Your task to perform on an android device: open app "Venmo" Image 0: 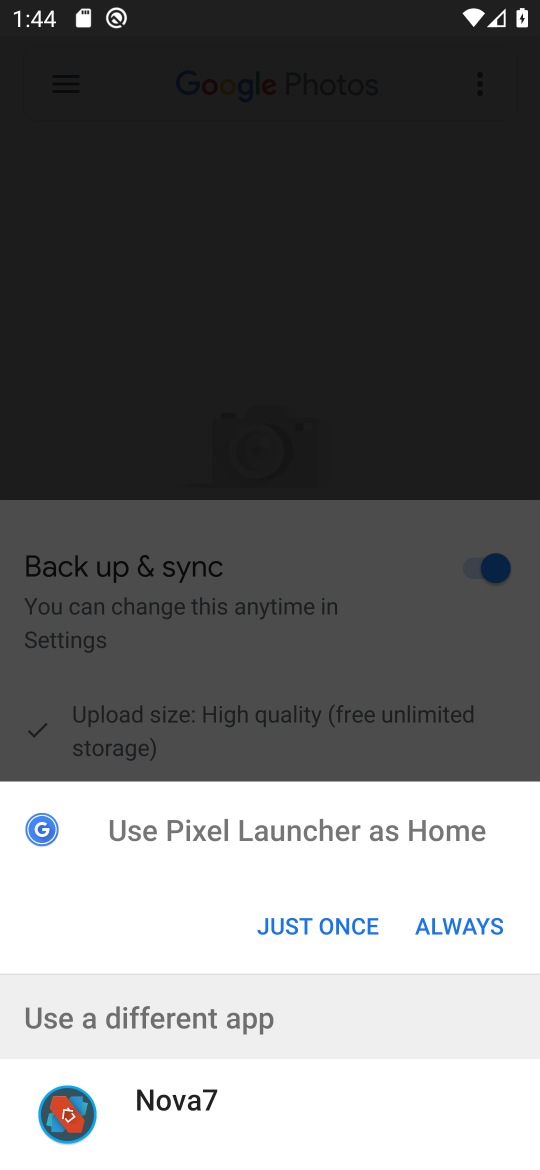
Step 0: press home button
Your task to perform on an android device: open app "Venmo" Image 1: 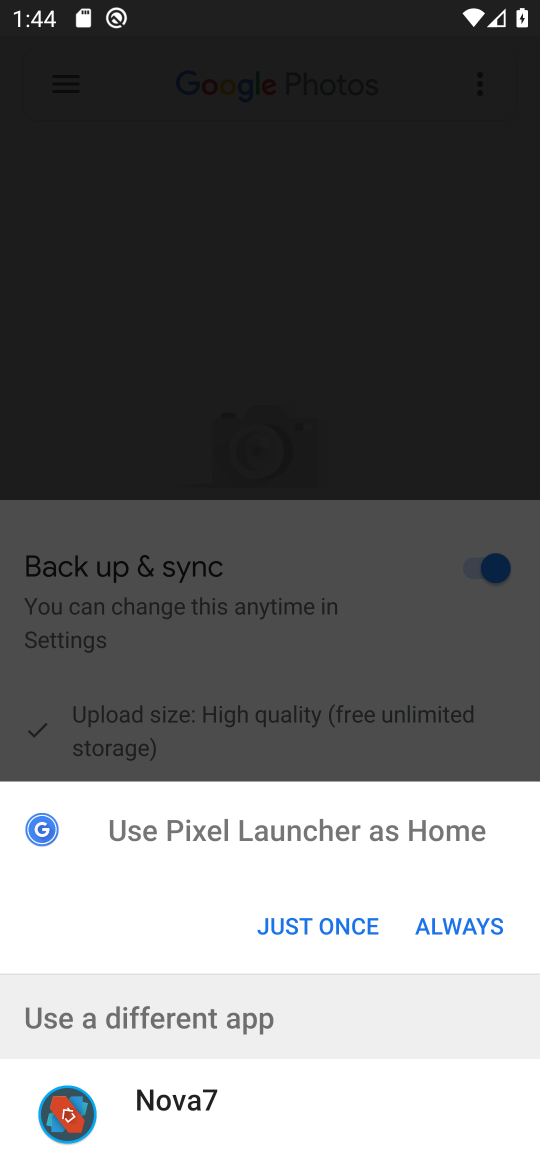
Step 1: click (299, 920)
Your task to perform on an android device: open app "Venmo" Image 2: 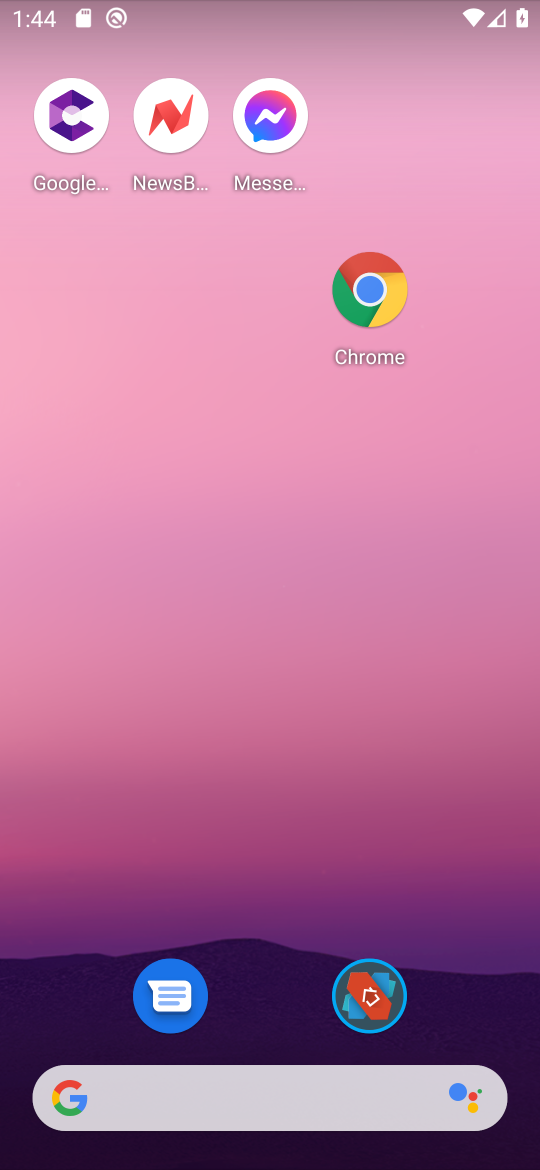
Step 2: drag from (278, 1027) to (471, 106)
Your task to perform on an android device: open app "Venmo" Image 3: 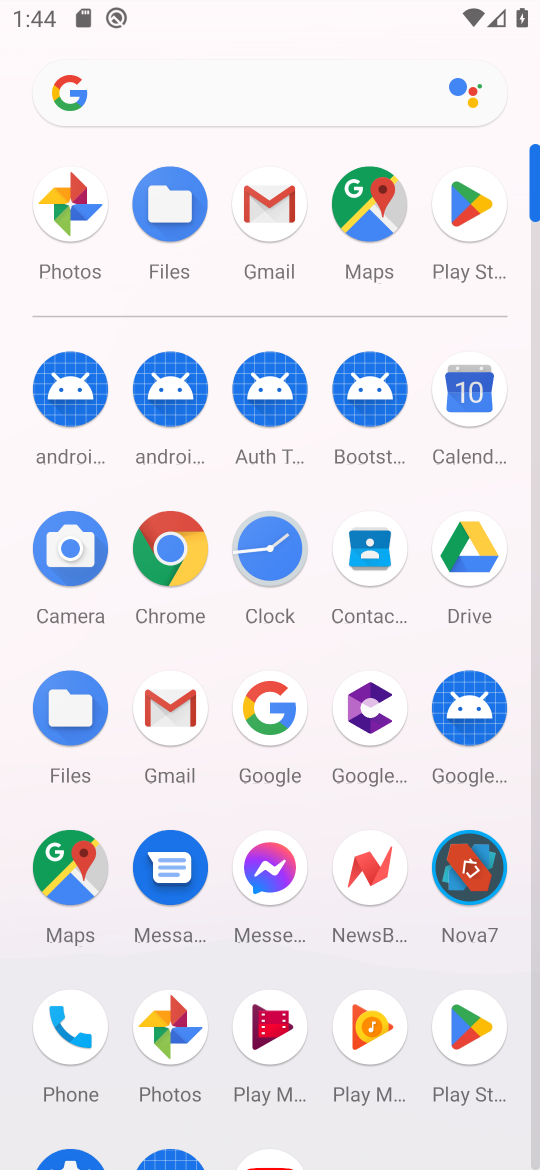
Step 3: click (461, 218)
Your task to perform on an android device: open app "Venmo" Image 4: 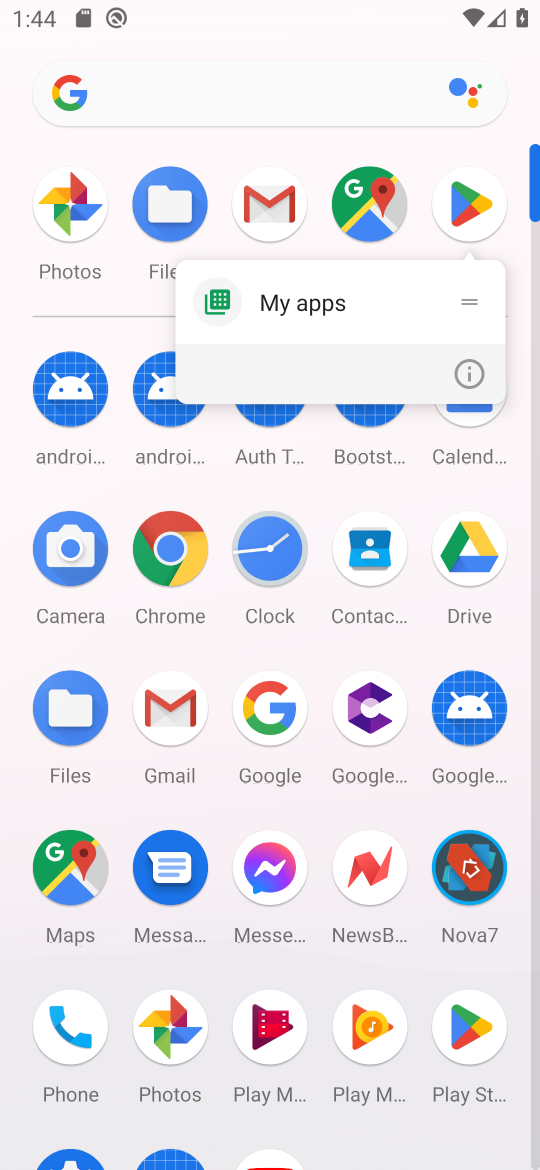
Step 4: click (464, 217)
Your task to perform on an android device: open app "Venmo" Image 5: 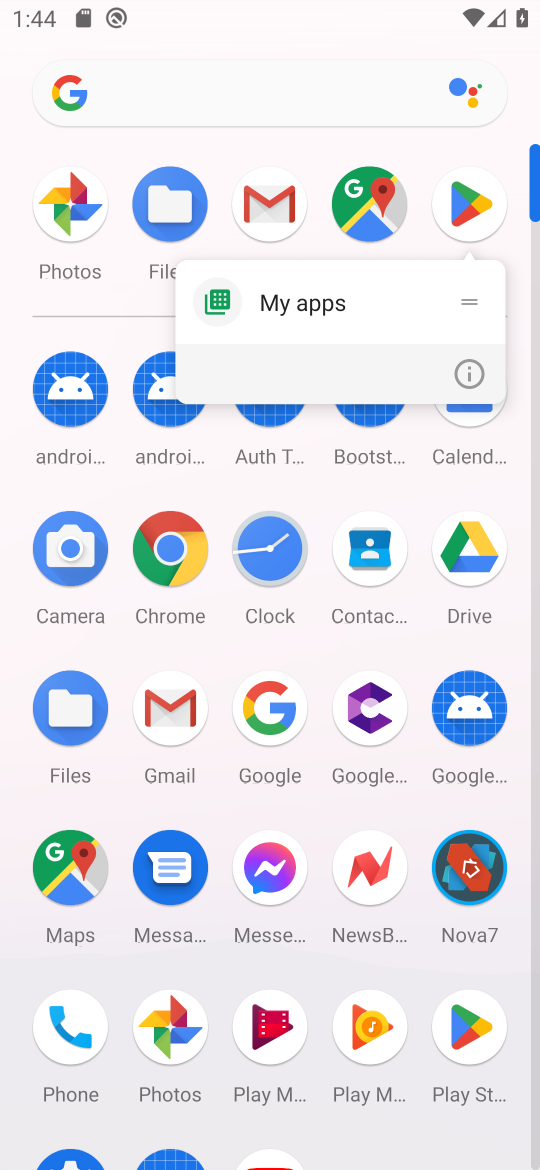
Step 5: click (458, 217)
Your task to perform on an android device: open app "Venmo" Image 6: 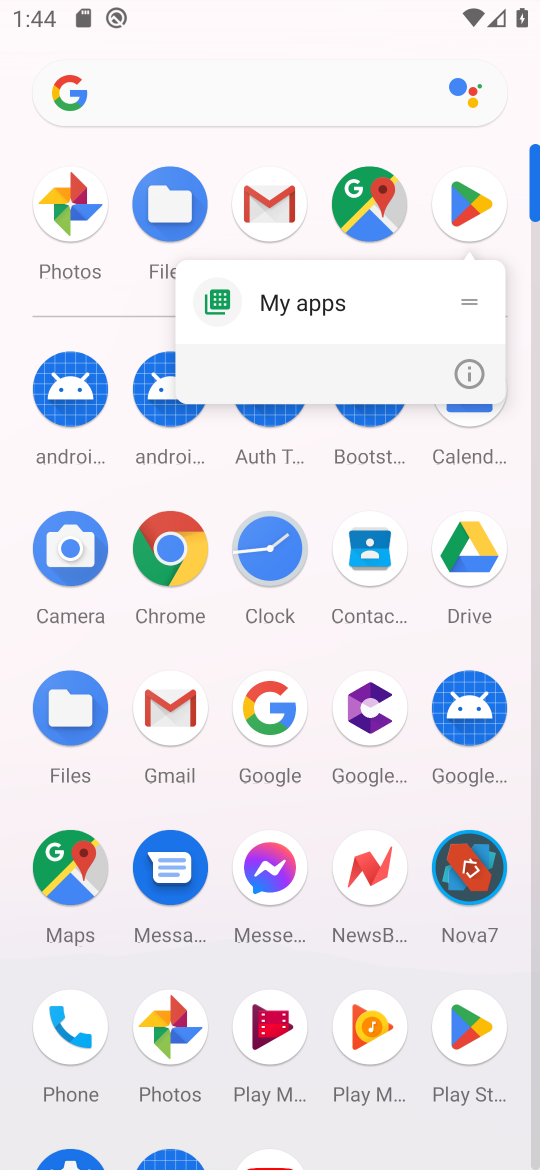
Step 6: click (458, 217)
Your task to perform on an android device: open app "Venmo" Image 7: 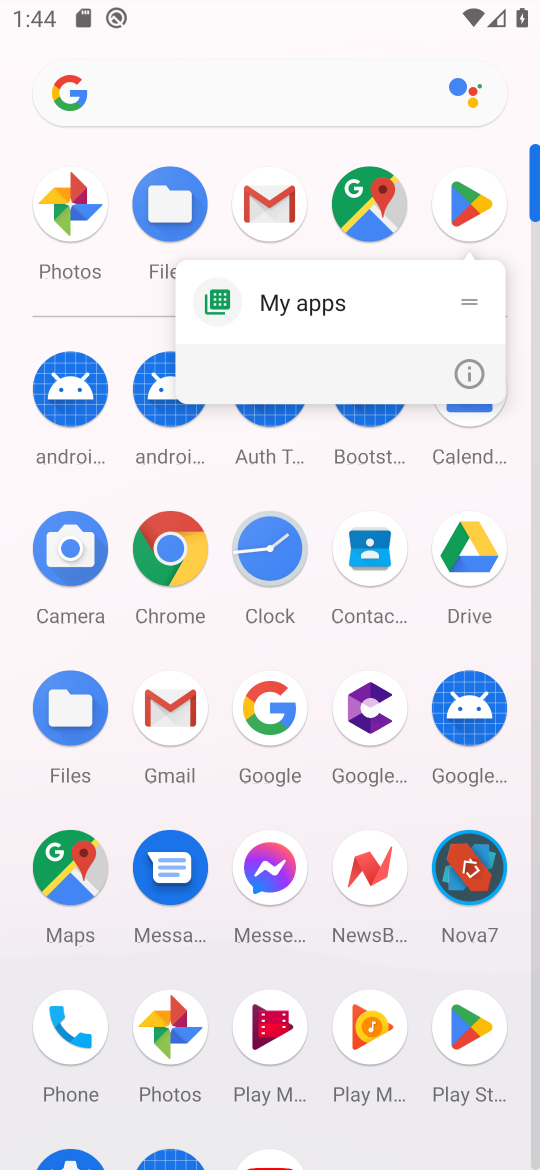
Step 7: click (458, 217)
Your task to perform on an android device: open app "Venmo" Image 8: 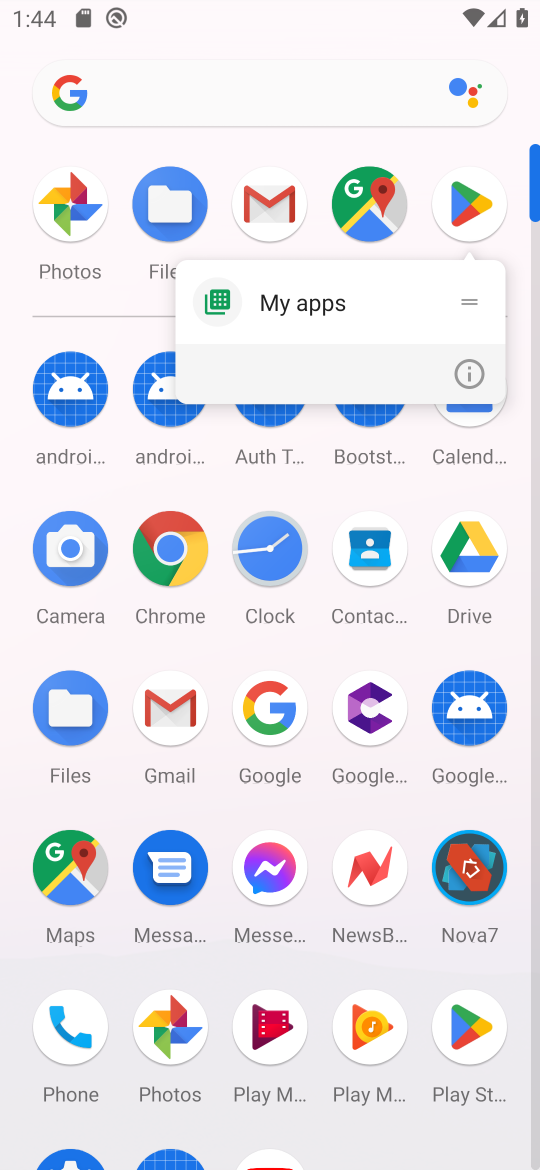
Step 8: click (458, 217)
Your task to perform on an android device: open app "Venmo" Image 9: 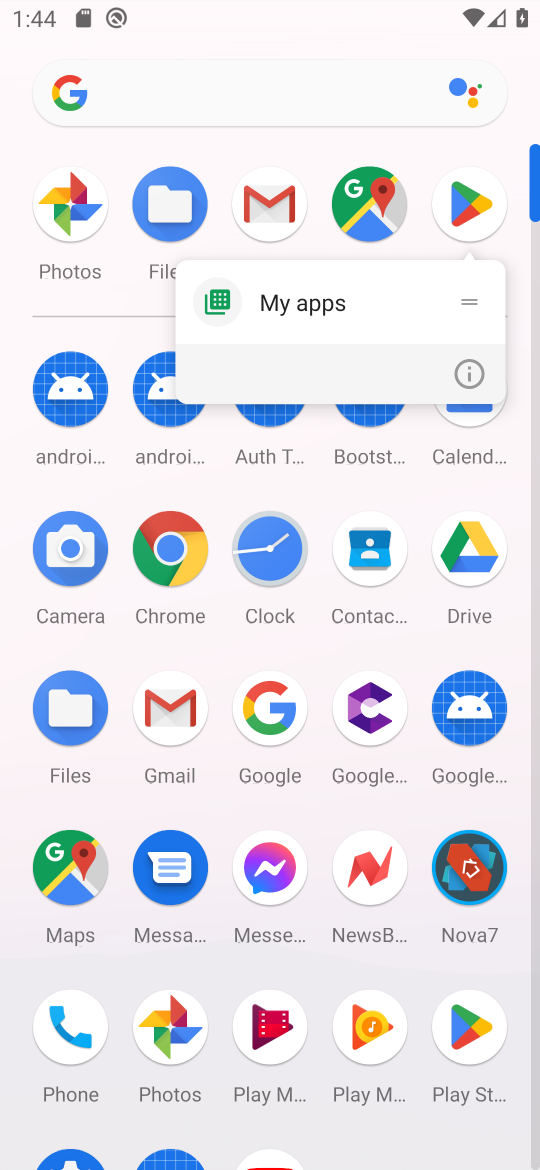
Step 9: click (458, 215)
Your task to perform on an android device: open app "Venmo" Image 10: 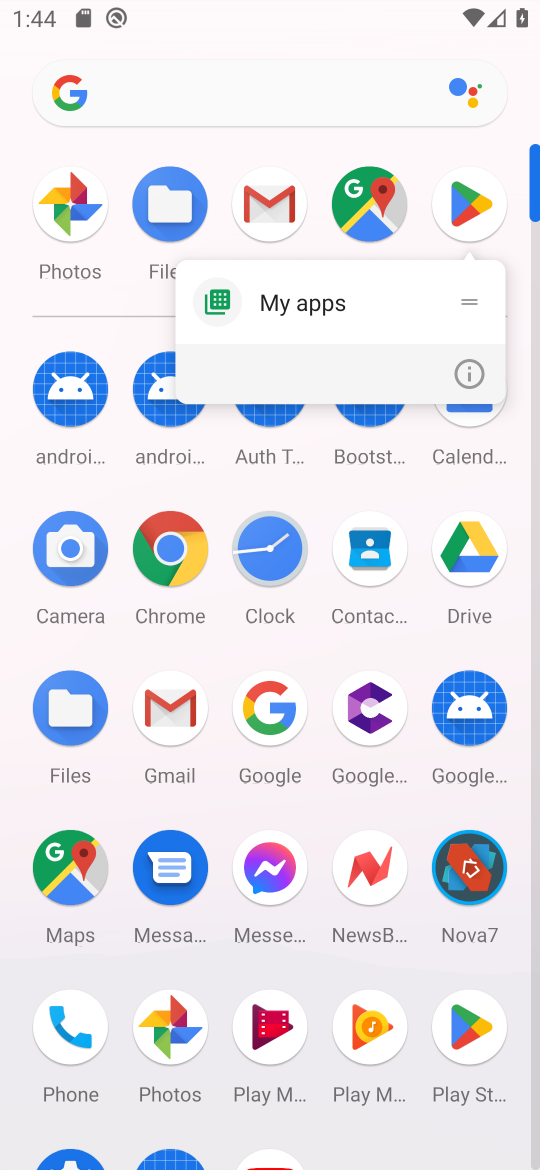
Step 10: click (453, 219)
Your task to perform on an android device: open app "Venmo" Image 11: 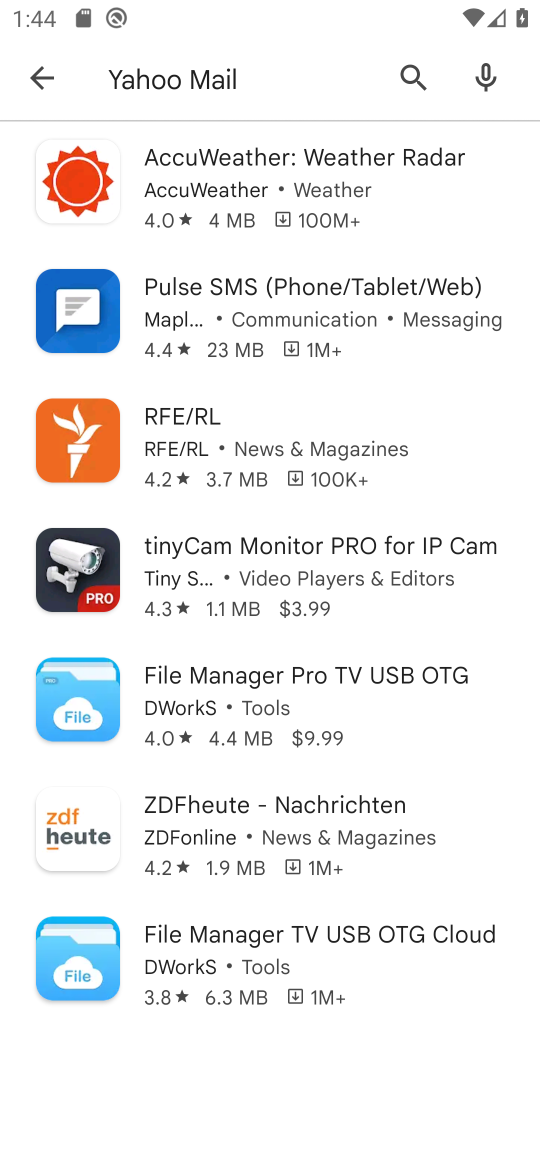
Step 11: press back button
Your task to perform on an android device: open app "Venmo" Image 12: 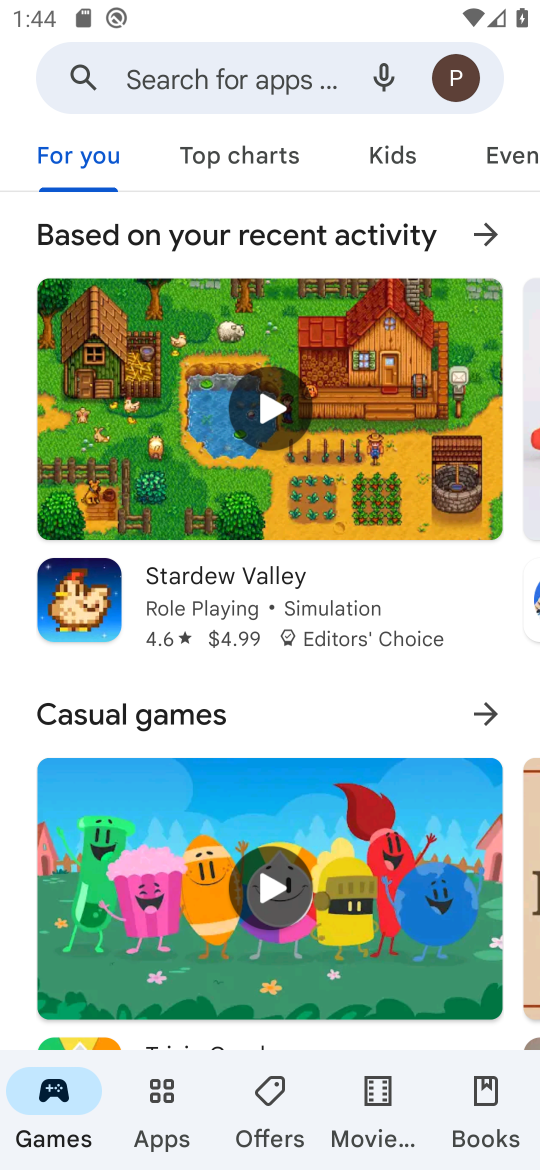
Step 12: click (189, 78)
Your task to perform on an android device: open app "Venmo" Image 13: 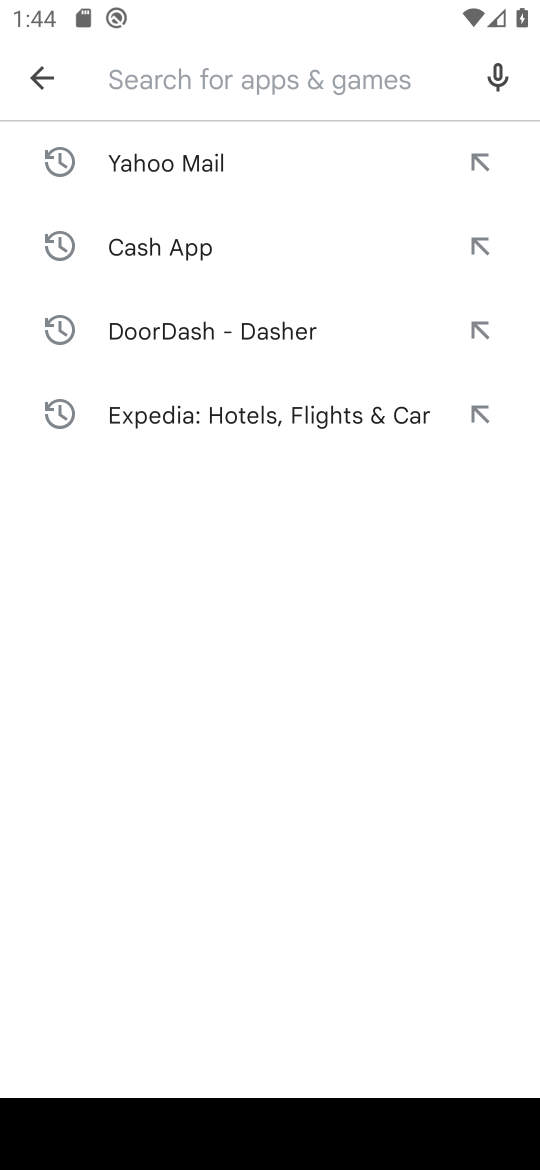
Step 13: type "Venmo"
Your task to perform on an android device: open app "Venmo" Image 14: 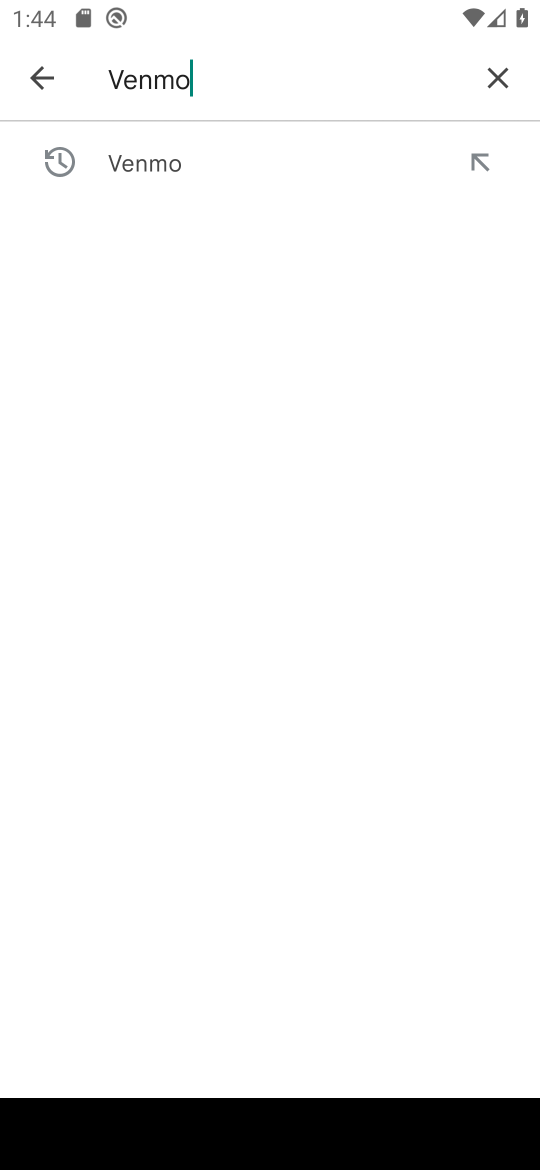
Step 14: click (118, 167)
Your task to perform on an android device: open app "Venmo" Image 15: 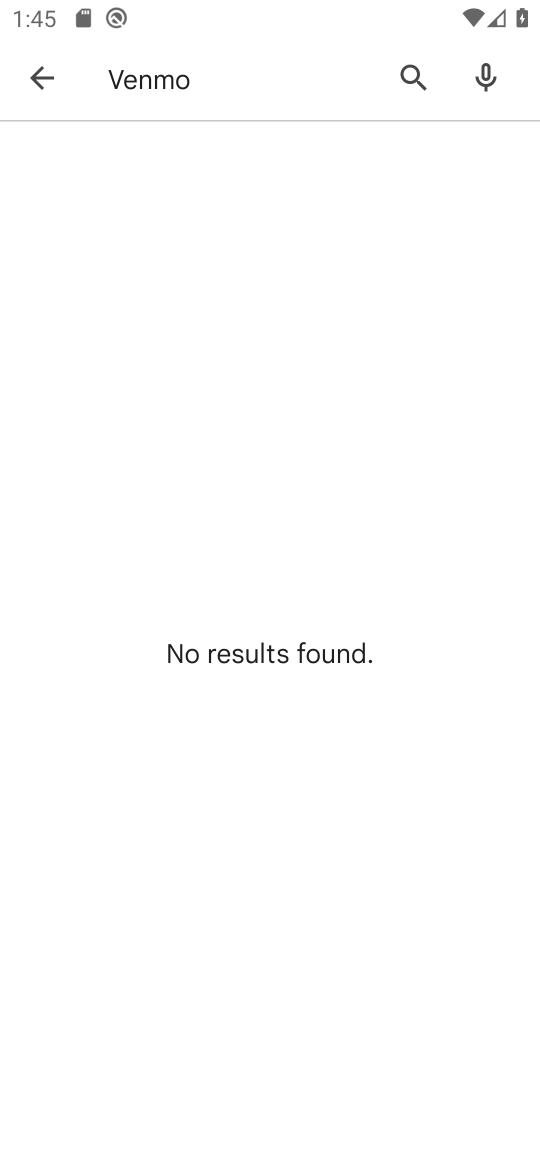
Step 15: task complete